Your task to perform on an android device: clear all cookies in the chrome app Image 0: 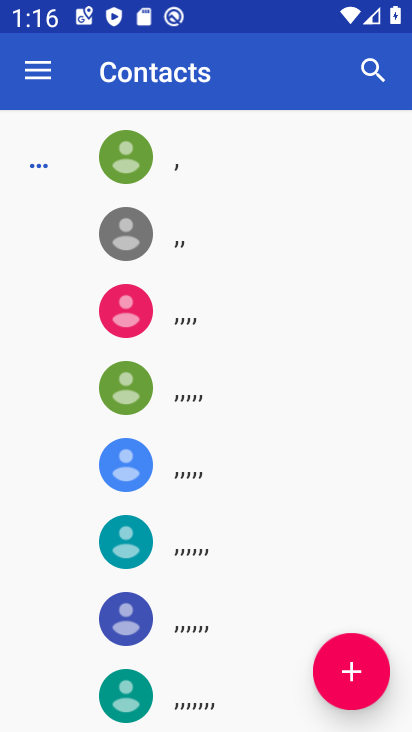
Step 0: press back button
Your task to perform on an android device: clear all cookies in the chrome app Image 1: 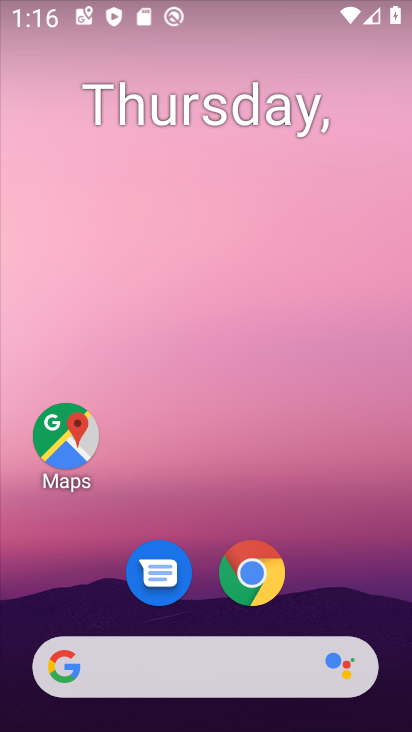
Step 1: drag from (316, 554) to (248, 123)
Your task to perform on an android device: clear all cookies in the chrome app Image 2: 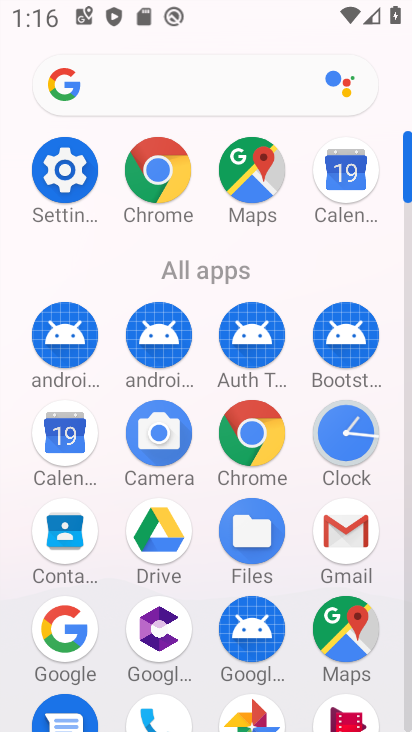
Step 2: click (155, 164)
Your task to perform on an android device: clear all cookies in the chrome app Image 3: 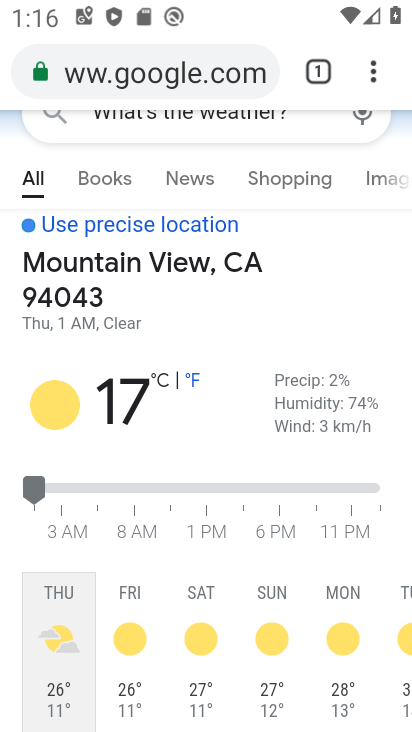
Step 3: drag from (380, 63) to (257, 564)
Your task to perform on an android device: clear all cookies in the chrome app Image 4: 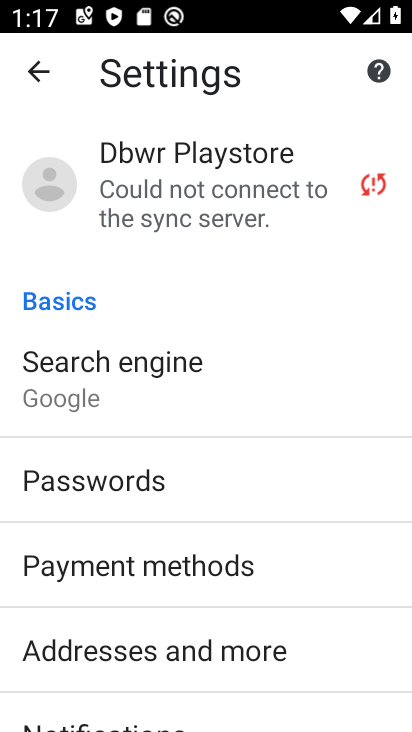
Step 4: drag from (249, 396) to (239, 151)
Your task to perform on an android device: clear all cookies in the chrome app Image 5: 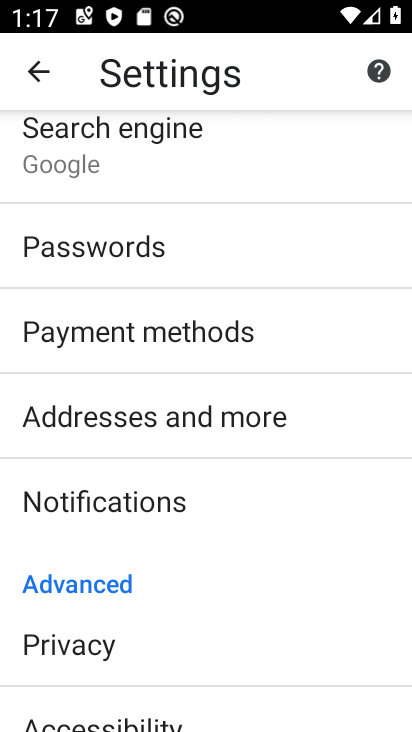
Step 5: click (114, 653)
Your task to perform on an android device: clear all cookies in the chrome app Image 6: 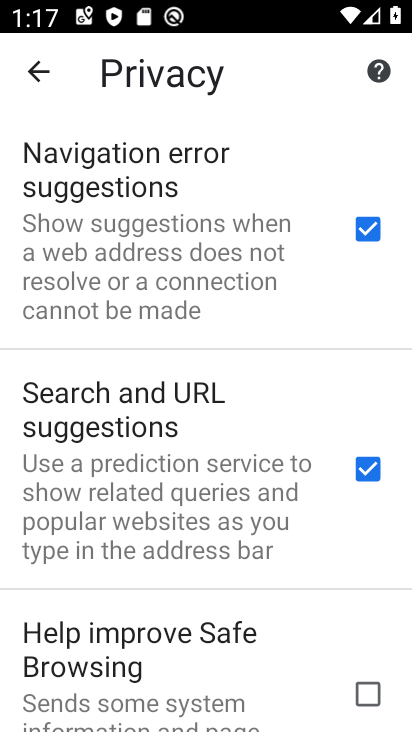
Step 6: drag from (136, 554) to (182, 91)
Your task to perform on an android device: clear all cookies in the chrome app Image 7: 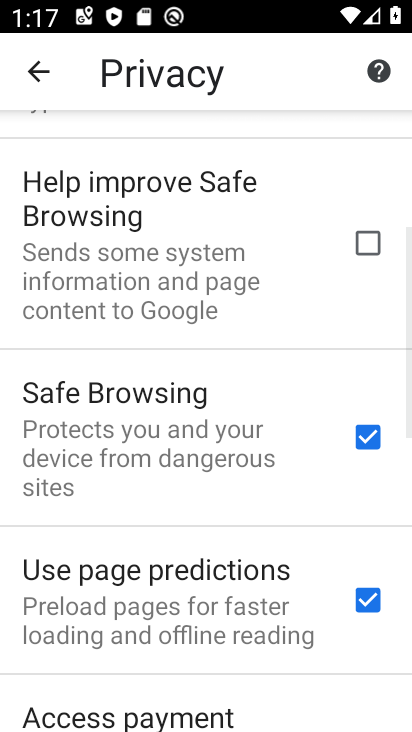
Step 7: drag from (226, 534) to (213, 141)
Your task to perform on an android device: clear all cookies in the chrome app Image 8: 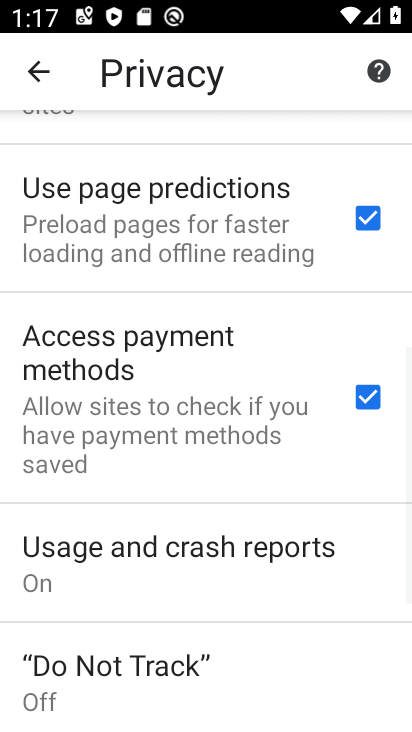
Step 8: drag from (286, 621) to (229, 102)
Your task to perform on an android device: clear all cookies in the chrome app Image 9: 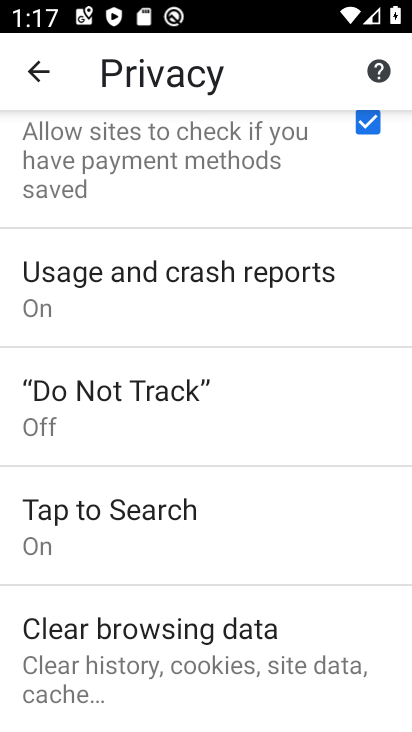
Step 9: click (206, 645)
Your task to perform on an android device: clear all cookies in the chrome app Image 10: 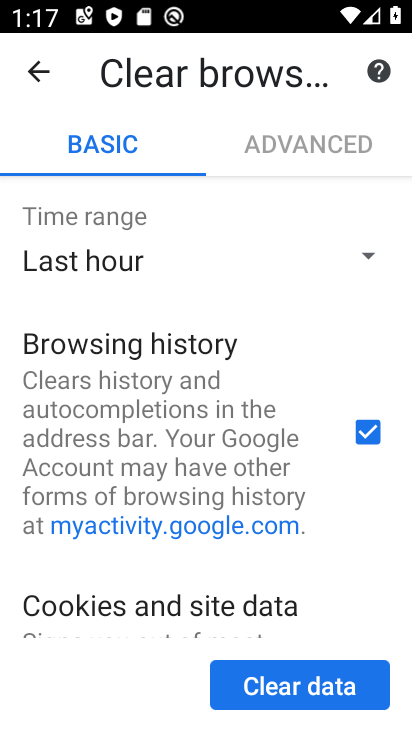
Step 10: drag from (197, 588) to (207, 229)
Your task to perform on an android device: clear all cookies in the chrome app Image 11: 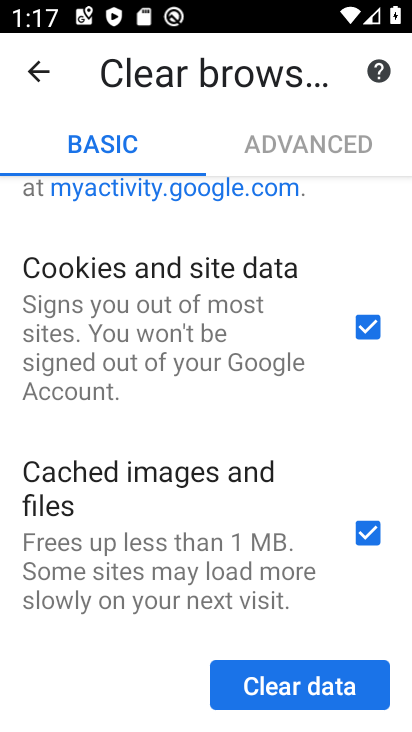
Step 11: click (280, 684)
Your task to perform on an android device: clear all cookies in the chrome app Image 12: 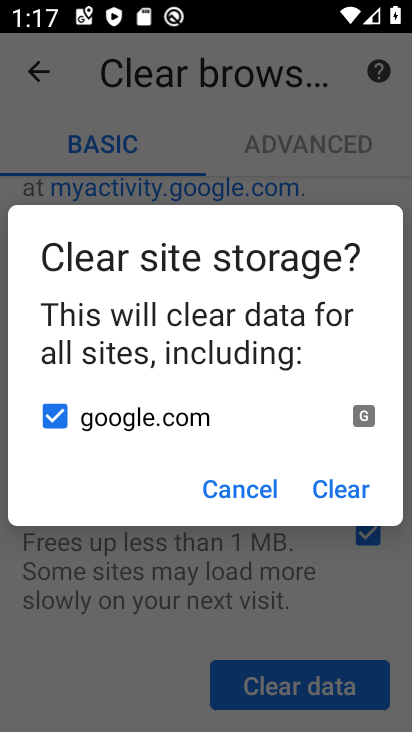
Step 12: click (308, 489)
Your task to perform on an android device: clear all cookies in the chrome app Image 13: 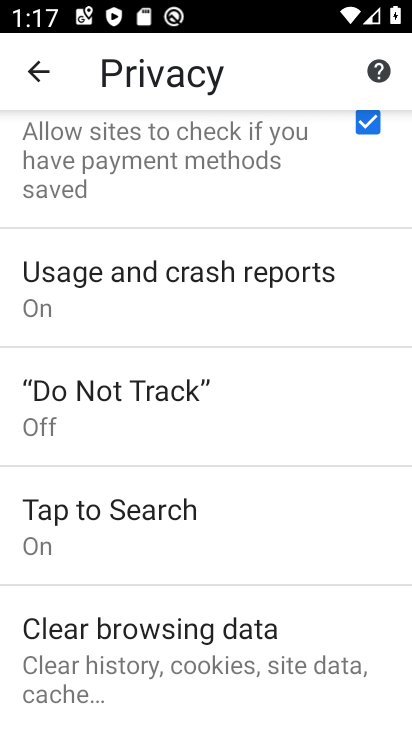
Step 13: task complete